Your task to perform on an android device: turn on translation in the chrome app Image 0: 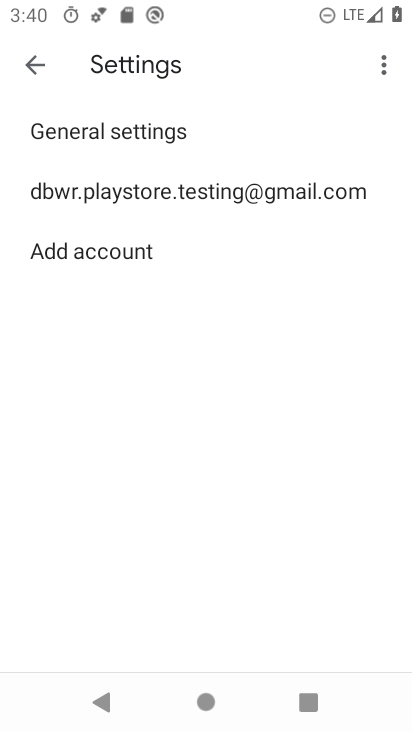
Step 0: press home button
Your task to perform on an android device: turn on translation in the chrome app Image 1: 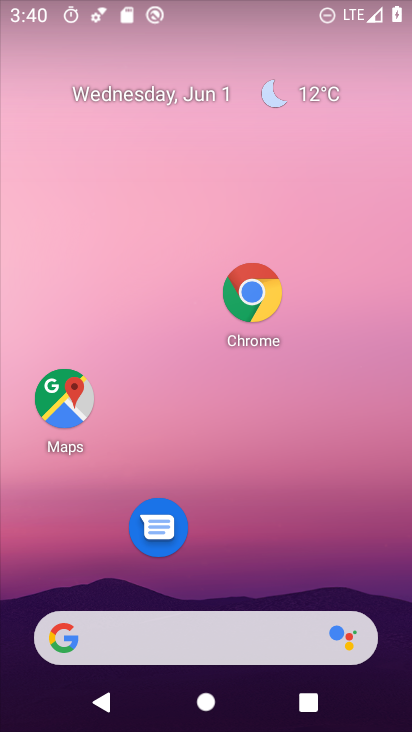
Step 1: drag from (219, 541) to (228, 318)
Your task to perform on an android device: turn on translation in the chrome app Image 2: 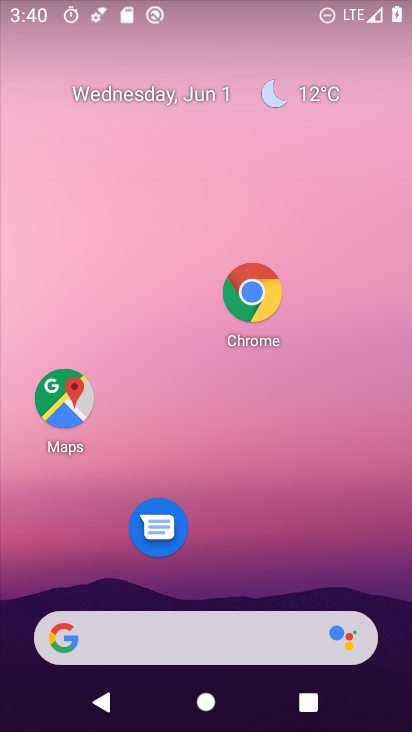
Step 2: drag from (148, 543) to (142, 376)
Your task to perform on an android device: turn on translation in the chrome app Image 3: 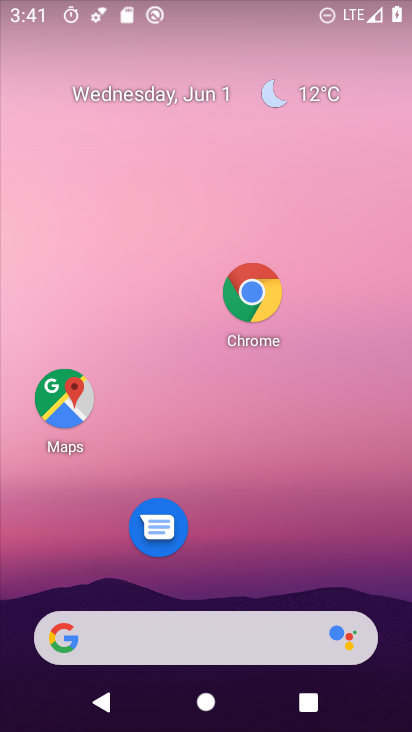
Step 3: drag from (206, 678) to (178, 340)
Your task to perform on an android device: turn on translation in the chrome app Image 4: 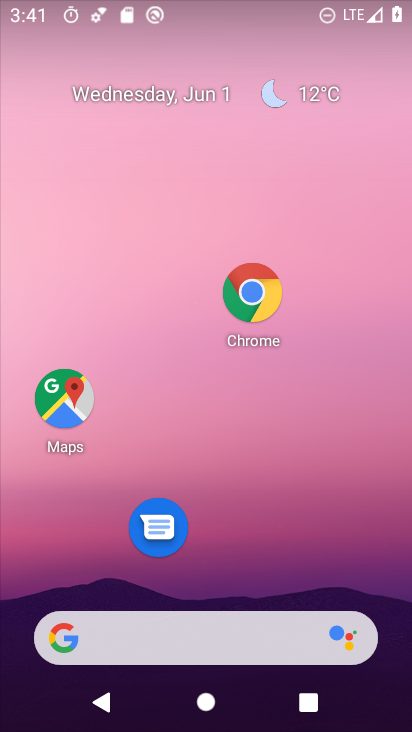
Step 4: drag from (196, 526) to (172, 136)
Your task to perform on an android device: turn on translation in the chrome app Image 5: 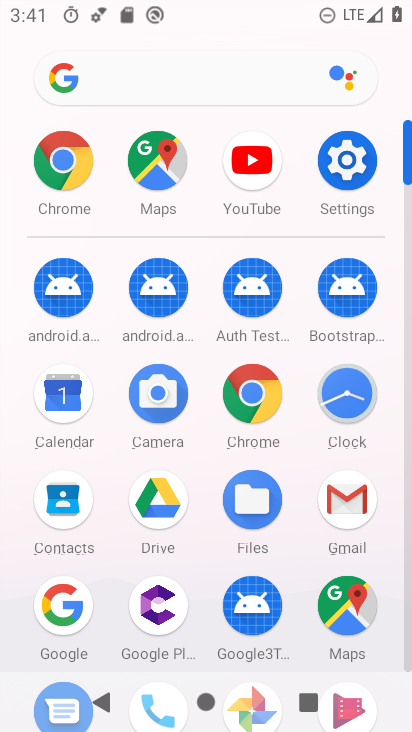
Step 5: click (56, 184)
Your task to perform on an android device: turn on translation in the chrome app Image 6: 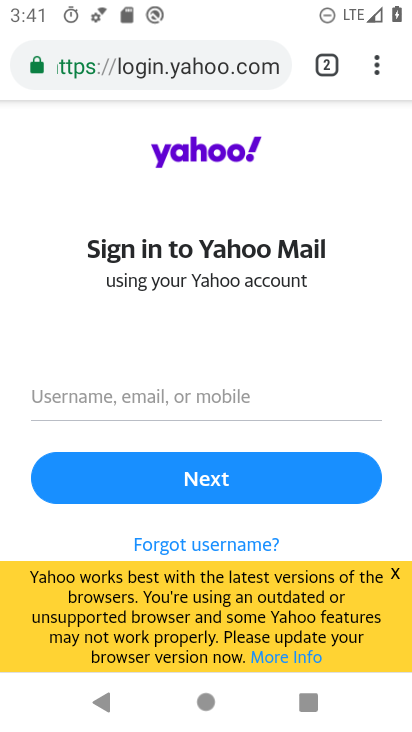
Step 6: click (375, 74)
Your task to perform on an android device: turn on translation in the chrome app Image 7: 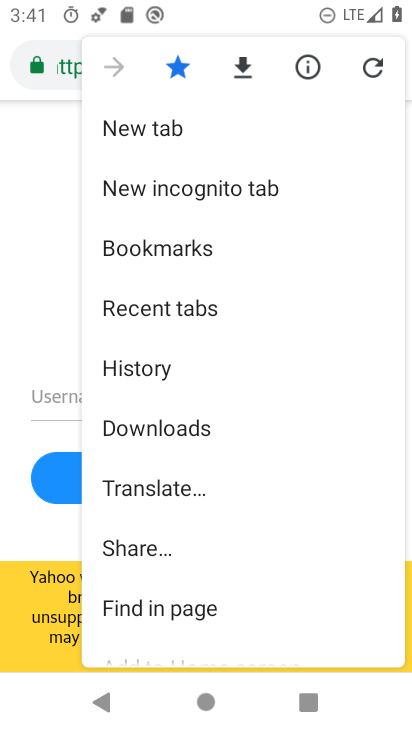
Step 7: click (196, 487)
Your task to perform on an android device: turn on translation in the chrome app Image 8: 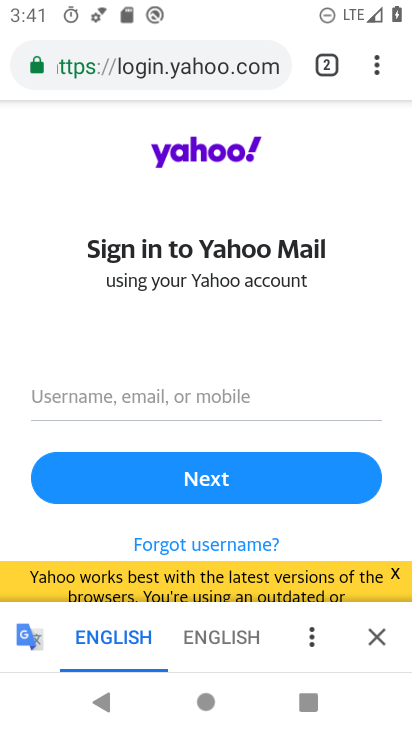
Step 8: click (316, 636)
Your task to perform on an android device: turn on translation in the chrome app Image 9: 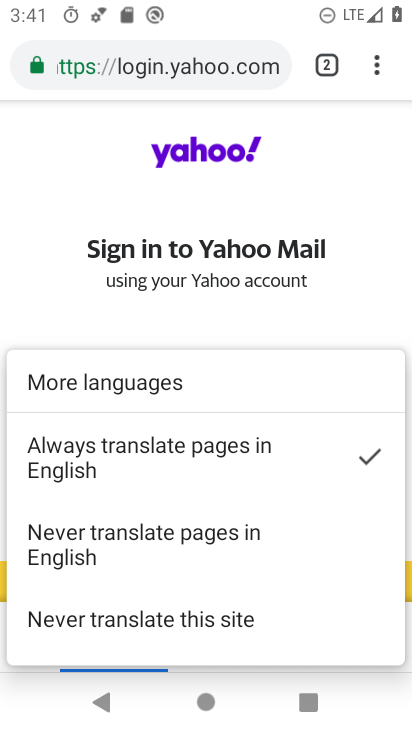
Step 9: task complete